Your task to perform on an android device: change the clock style Image 0: 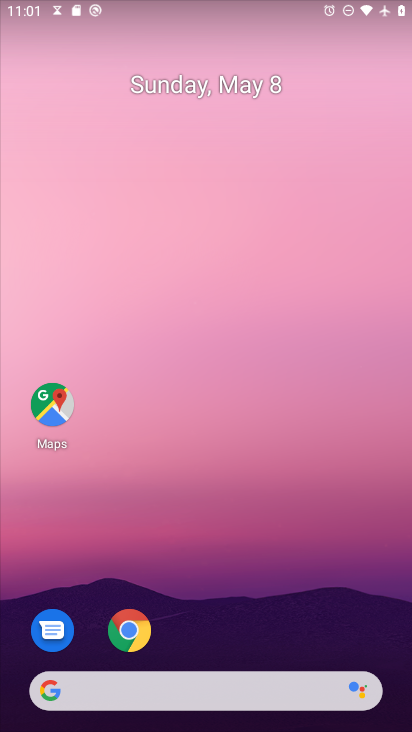
Step 0: drag from (187, 689) to (341, 49)
Your task to perform on an android device: change the clock style Image 1: 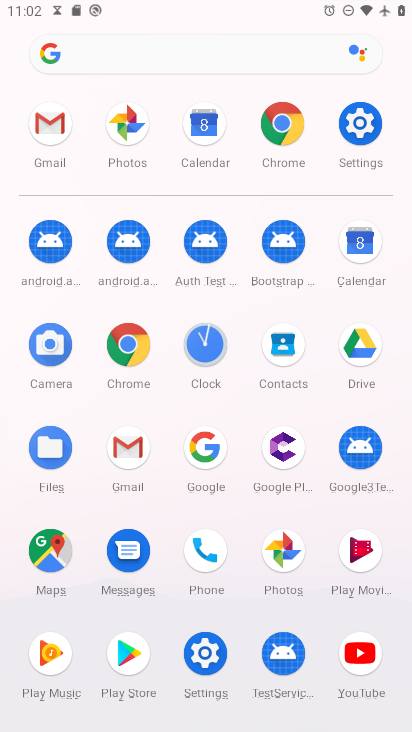
Step 1: click (208, 349)
Your task to perform on an android device: change the clock style Image 2: 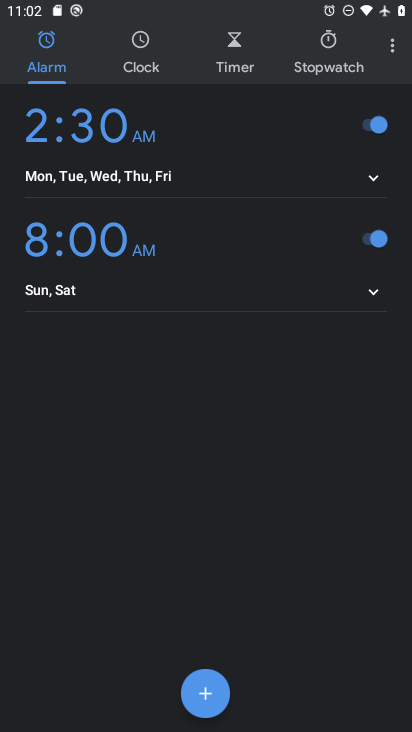
Step 2: click (399, 40)
Your task to perform on an android device: change the clock style Image 3: 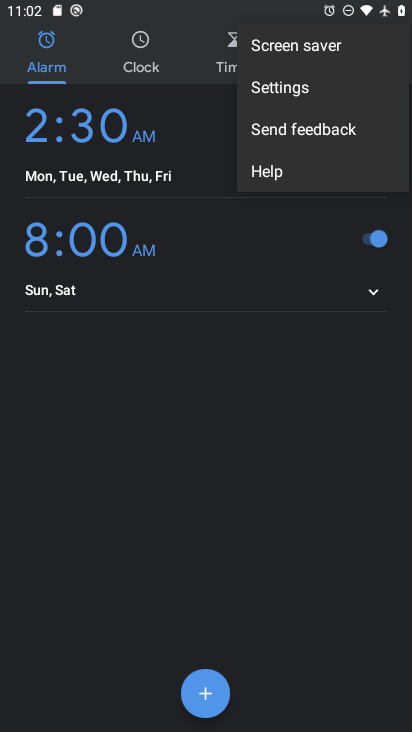
Step 3: click (263, 87)
Your task to perform on an android device: change the clock style Image 4: 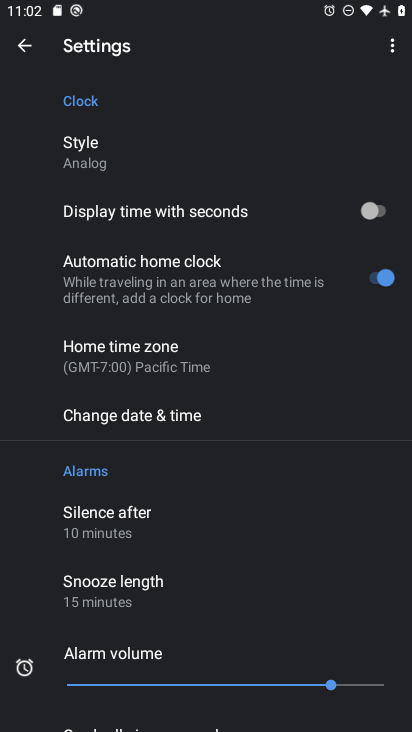
Step 4: click (96, 143)
Your task to perform on an android device: change the clock style Image 5: 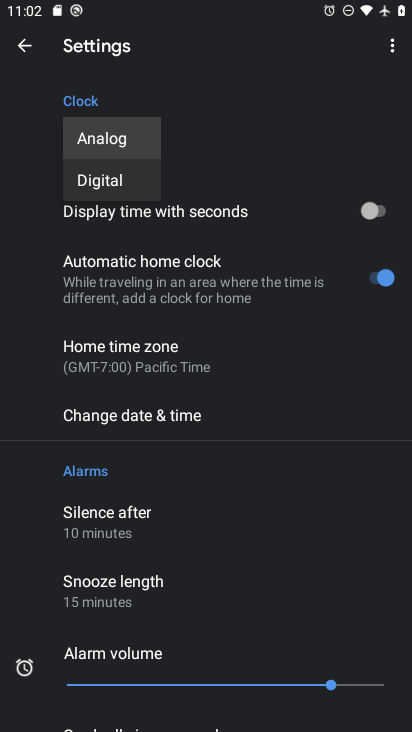
Step 5: click (112, 185)
Your task to perform on an android device: change the clock style Image 6: 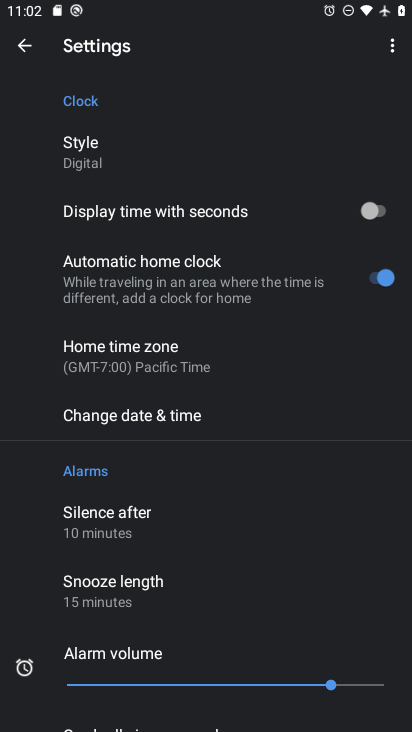
Step 6: task complete